Your task to perform on an android device: Empty the shopping cart on bestbuy. Search for logitech g933 on bestbuy, select the first entry, and add it to the cart. Image 0: 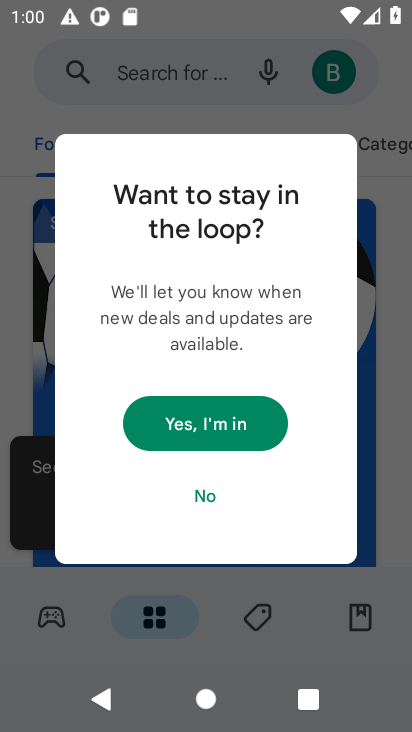
Step 0: press home button
Your task to perform on an android device: Empty the shopping cart on bestbuy. Search for logitech g933 on bestbuy, select the first entry, and add it to the cart. Image 1: 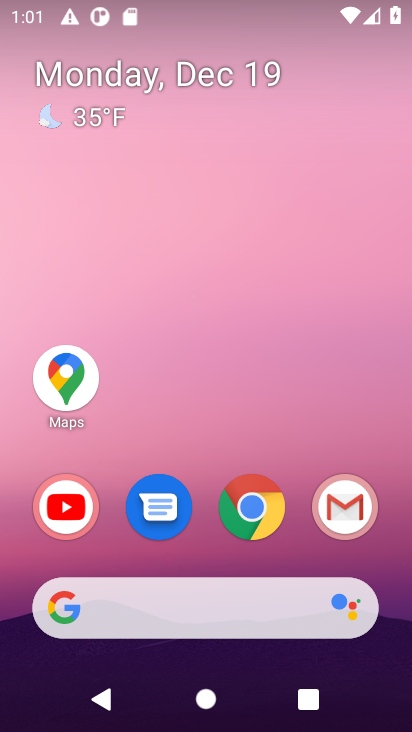
Step 1: click (255, 510)
Your task to perform on an android device: Empty the shopping cart on bestbuy. Search for logitech g933 on bestbuy, select the first entry, and add it to the cart. Image 2: 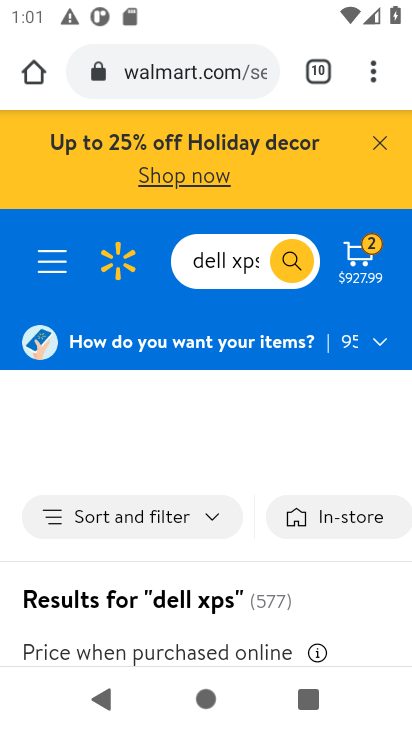
Step 2: click (156, 70)
Your task to perform on an android device: Empty the shopping cart on bestbuy. Search for logitech g933 on bestbuy, select the first entry, and add it to the cart. Image 3: 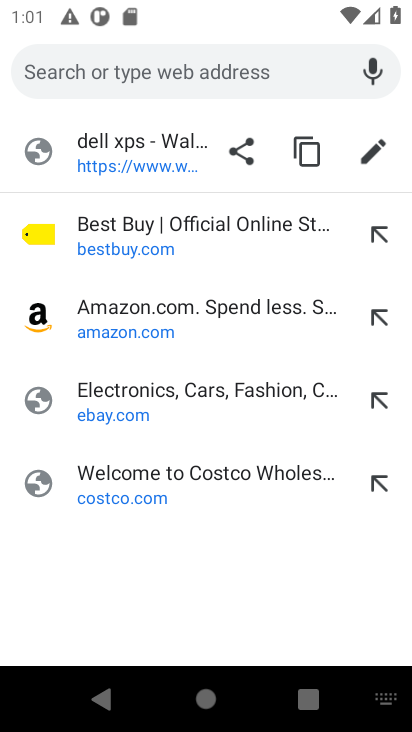
Step 3: click (100, 234)
Your task to perform on an android device: Empty the shopping cart on bestbuy. Search for logitech g933 on bestbuy, select the first entry, and add it to the cart. Image 4: 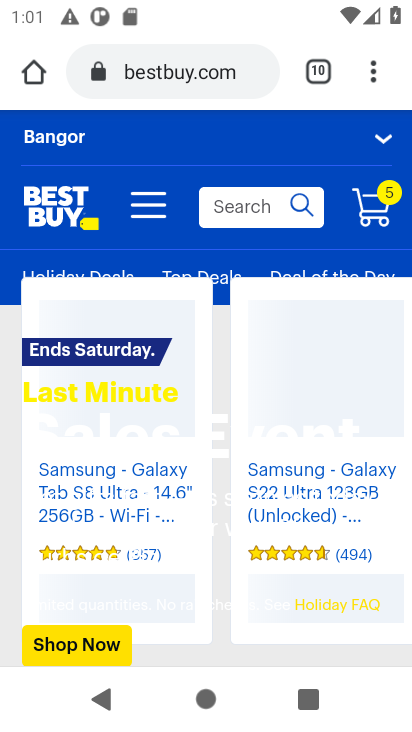
Step 4: click (368, 203)
Your task to perform on an android device: Empty the shopping cart on bestbuy. Search for logitech g933 on bestbuy, select the first entry, and add it to the cart. Image 5: 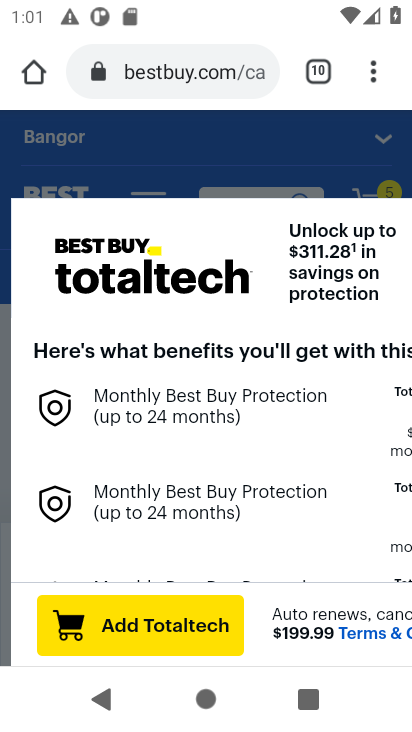
Step 5: click (291, 160)
Your task to perform on an android device: Empty the shopping cart on bestbuy. Search for logitech g933 on bestbuy, select the first entry, and add it to the cart. Image 6: 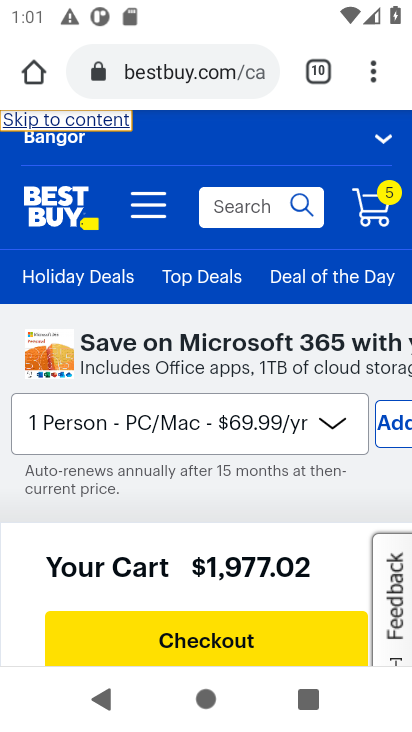
Step 6: drag from (171, 397) to (209, 49)
Your task to perform on an android device: Empty the shopping cart on bestbuy. Search for logitech g933 on bestbuy, select the first entry, and add it to the cart. Image 7: 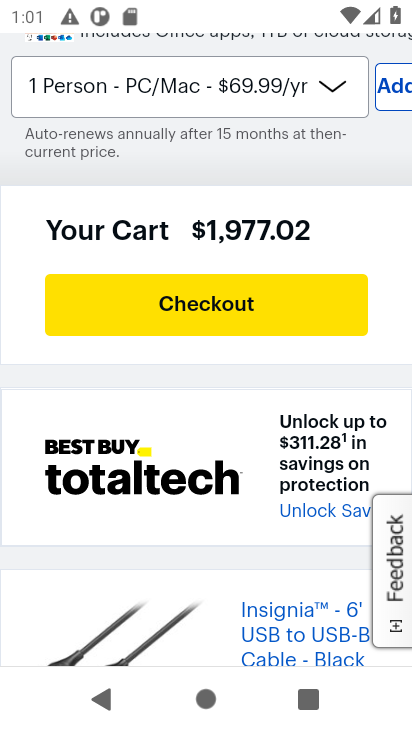
Step 7: drag from (162, 400) to (186, 78)
Your task to perform on an android device: Empty the shopping cart on bestbuy. Search for logitech g933 on bestbuy, select the first entry, and add it to the cart. Image 8: 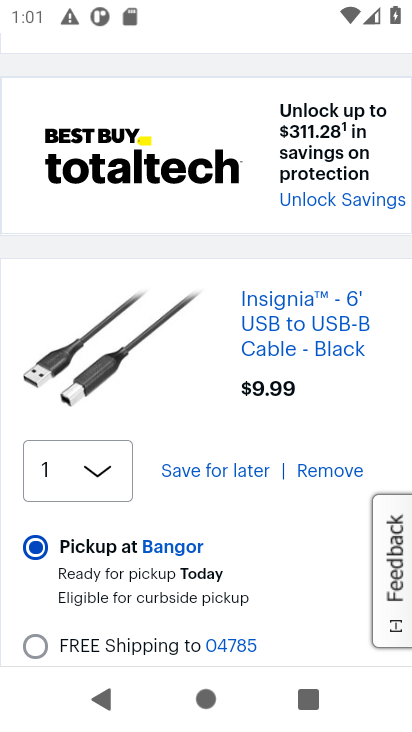
Step 8: click (320, 469)
Your task to perform on an android device: Empty the shopping cart on bestbuy. Search for logitech g933 on bestbuy, select the first entry, and add it to the cart. Image 9: 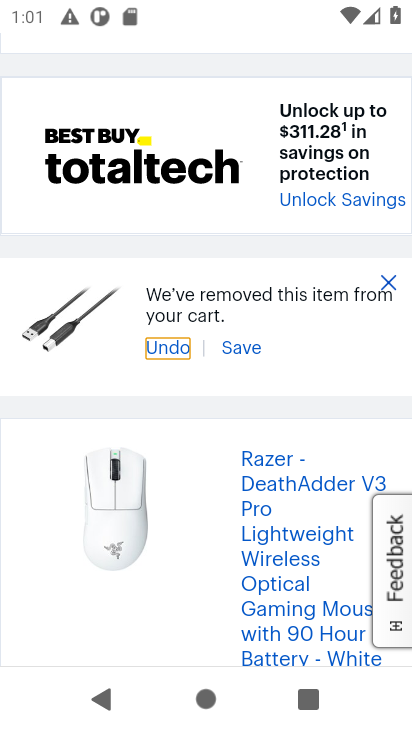
Step 9: drag from (320, 468) to (301, 156)
Your task to perform on an android device: Empty the shopping cart on bestbuy. Search for logitech g933 on bestbuy, select the first entry, and add it to the cart. Image 10: 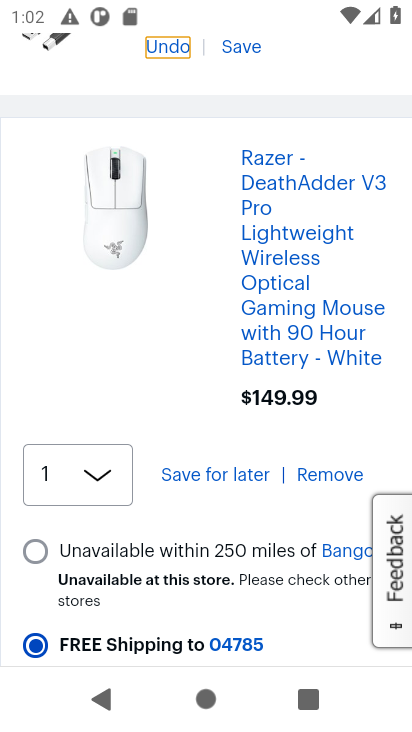
Step 10: click (316, 482)
Your task to perform on an android device: Empty the shopping cart on bestbuy. Search for logitech g933 on bestbuy, select the first entry, and add it to the cart. Image 11: 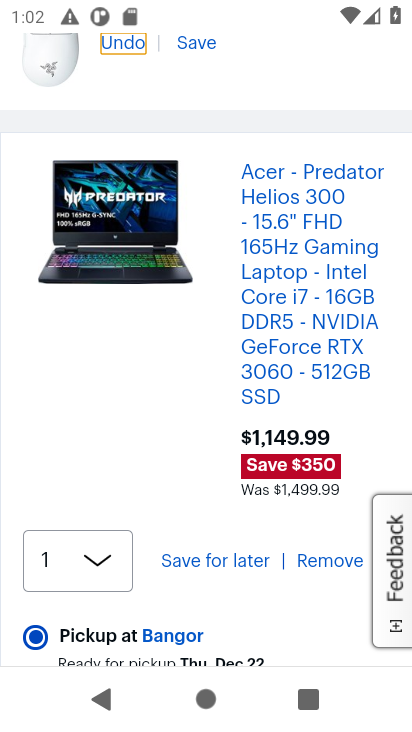
Step 11: click (307, 564)
Your task to perform on an android device: Empty the shopping cart on bestbuy. Search for logitech g933 on bestbuy, select the first entry, and add it to the cart. Image 12: 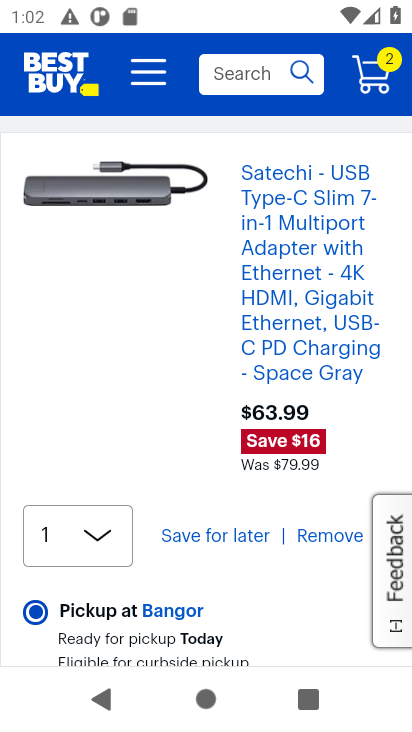
Step 12: click (313, 528)
Your task to perform on an android device: Empty the shopping cart on bestbuy. Search for logitech g933 on bestbuy, select the first entry, and add it to the cart. Image 13: 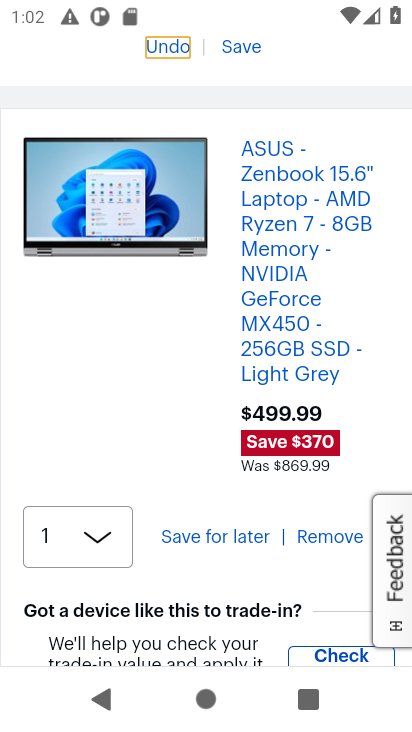
Step 13: click (309, 540)
Your task to perform on an android device: Empty the shopping cart on bestbuy. Search for logitech g933 on bestbuy, select the first entry, and add it to the cart. Image 14: 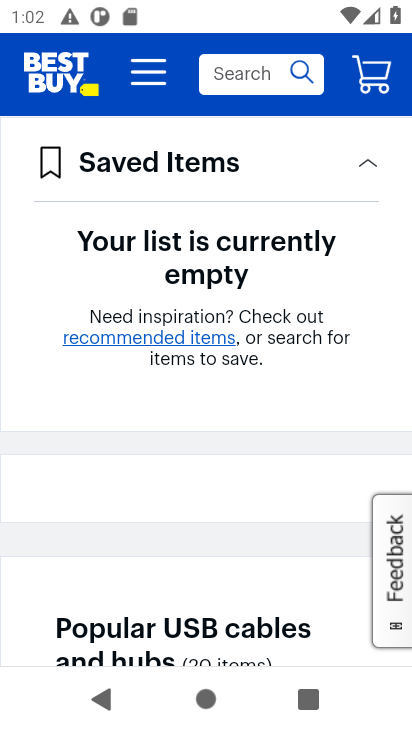
Step 14: drag from (197, 260) to (190, 362)
Your task to perform on an android device: Empty the shopping cart on bestbuy. Search for logitech g933 on bestbuy, select the first entry, and add it to the cart. Image 15: 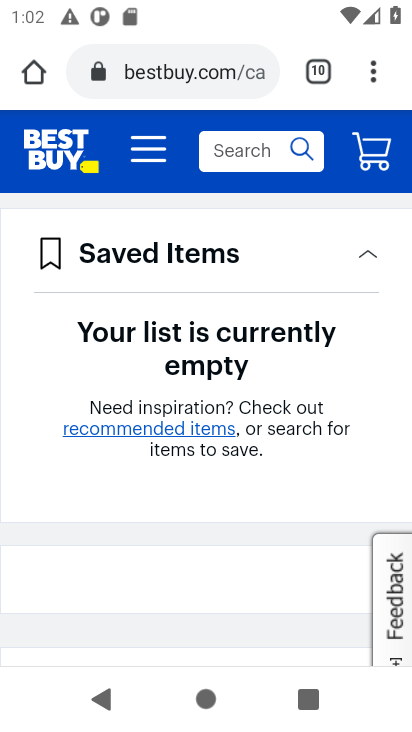
Step 15: click (228, 156)
Your task to perform on an android device: Empty the shopping cart on bestbuy. Search for logitech g933 on bestbuy, select the first entry, and add it to the cart. Image 16: 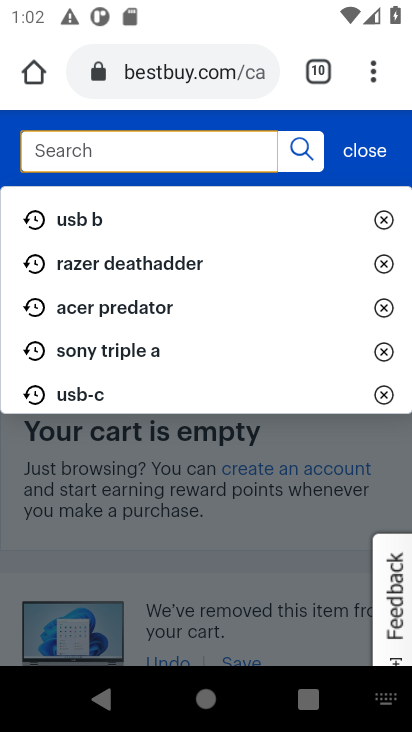
Step 16: type " logitech g933"
Your task to perform on an android device: Empty the shopping cart on bestbuy. Search for logitech g933 on bestbuy, select the first entry, and add it to the cart. Image 17: 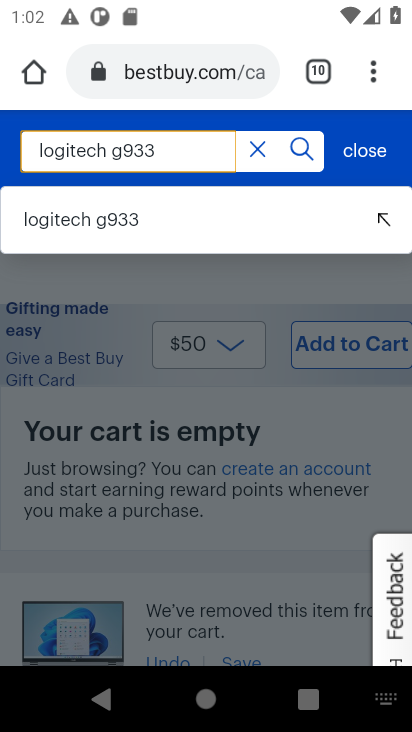
Step 17: click (87, 223)
Your task to perform on an android device: Empty the shopping cart on bestbuy. Search for logitech g933 on bestbuy, select the first entry, and add it to the cart. Image 18: 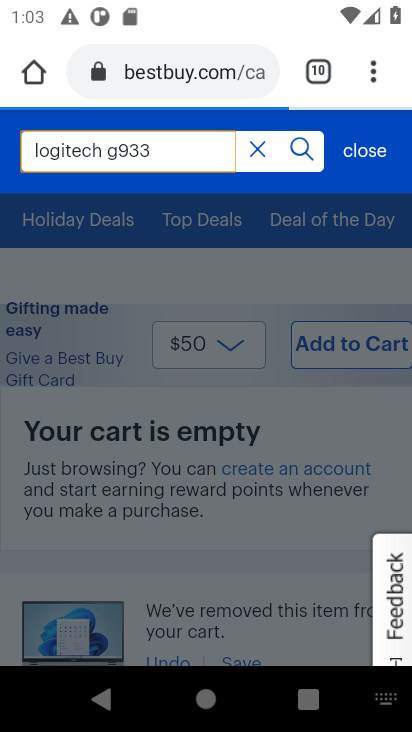
Step 18: click (302, 151)
Your task to perform on an android device: Empty the shopping cart on bestbuy. Search for logitech g933 on bestbuy, select the first entry, and add it to the cart. Image 19: 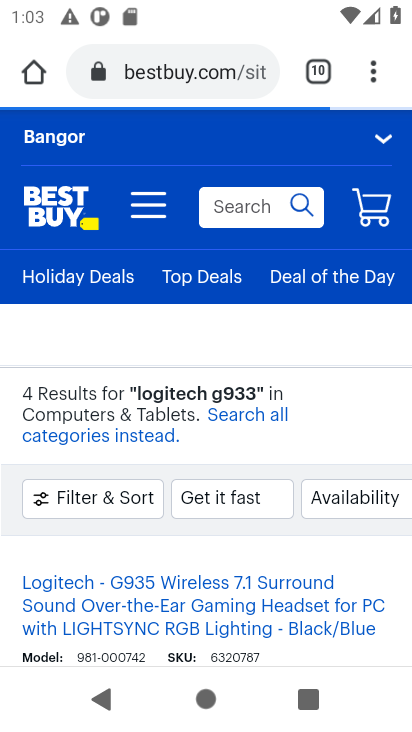
Step 19: task complete